Your task to perform on an android device: Show me popular videos on Youtube Image 0: 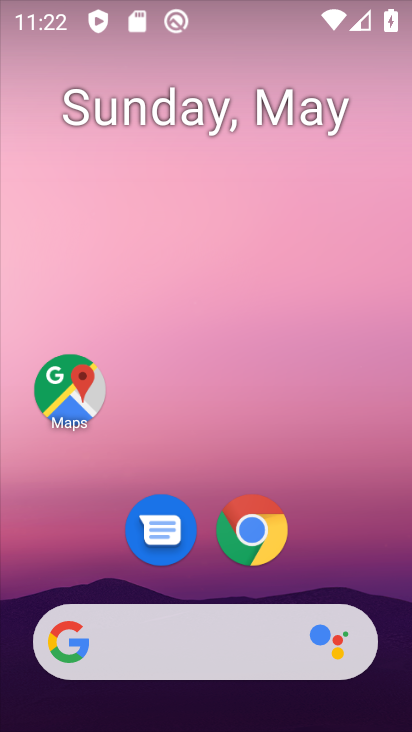
Step 0: drag from (218, 412) to (255, 106)
Your task to perform on an android device: Show me popular videos on Youtube Image 1: 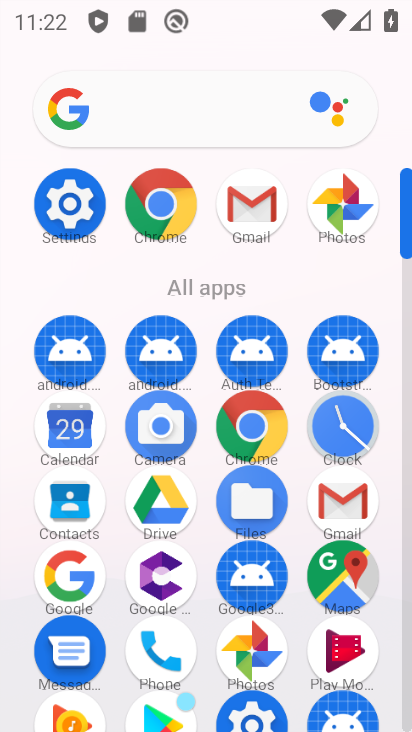
Step 1: drag from (208, 652) to (244, 86)
Your task to perform on an android device: Show me popular videos on Youtube Image 2: 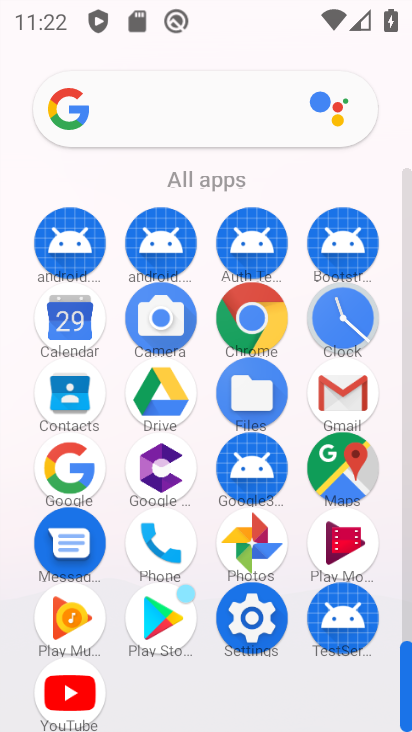
Step 2: click (68, 684)
Your task to perform on an android device: Show me popular videos on Youtube Image 3: 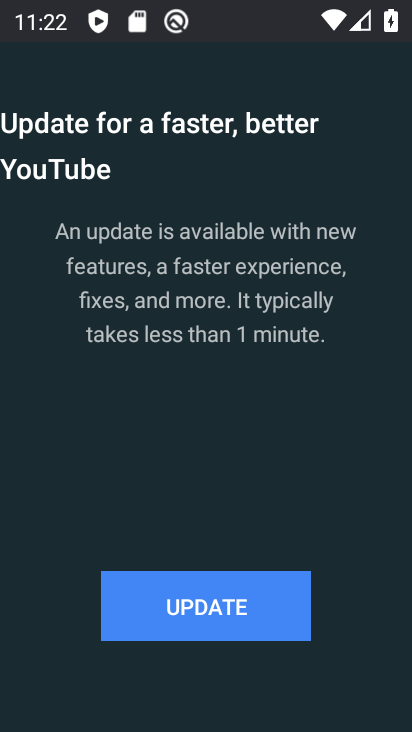
Step 3: click (228, 609)
Your task to perform on an android device: Show me popular videos on Youtube Image 4: 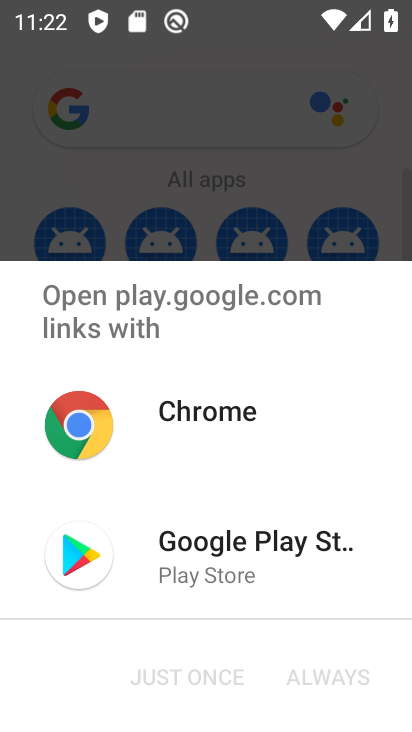
Step 4: click (188, 547)
Your task to perform on an android device: Show me popular videos on Youtube Image 5: 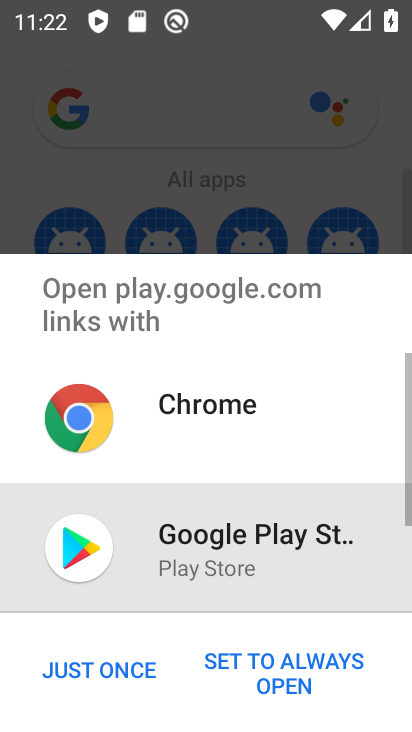
Step 5: click (173, 668)
Your task to perform on an android device: Show me popular videos on Youtube Image 6: 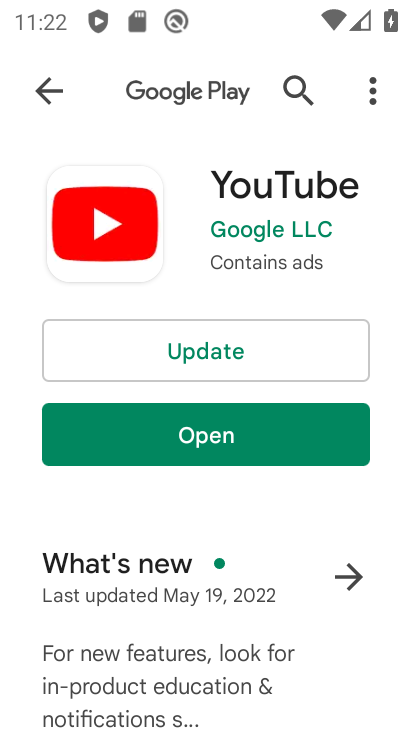
Step 6: click (33, 108)
Your task to perform on an android device: Show me popular videos on Youtube Image 7: 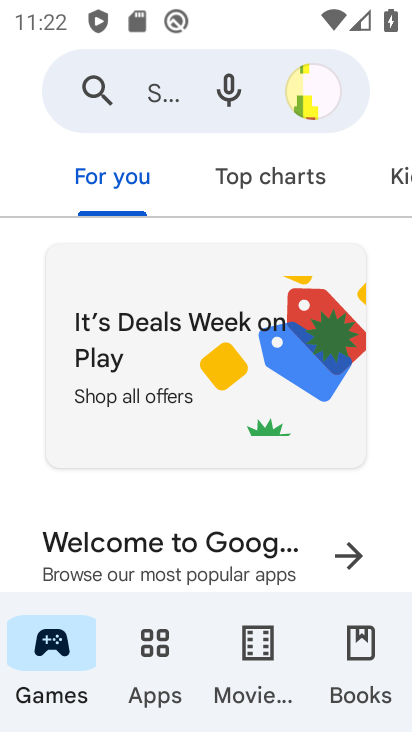
Step 7: press back button
Your task to perform on an android device: Show me popular videos on Youtube Image 8: 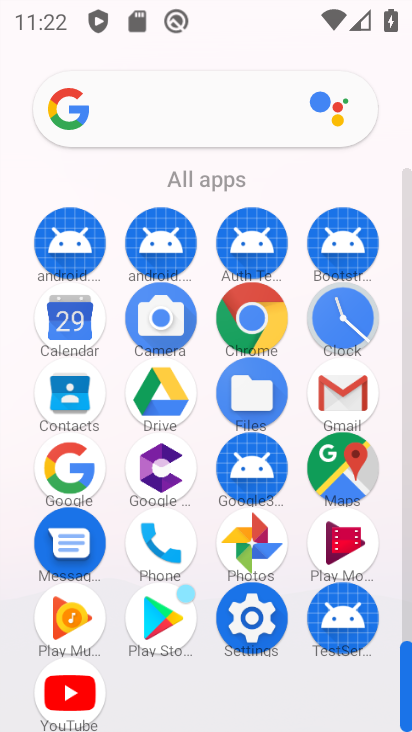
Step 8: click (83, 685)
Your task to perform on an android device: Show me popular videos on Youtube Image 9: 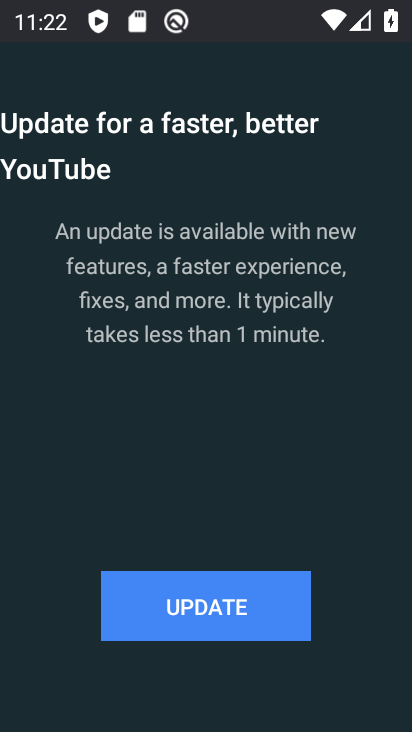
Step 9: click (200, 597)
Your task to perform on an android device: Show me popular videos on Youtube Image 10: 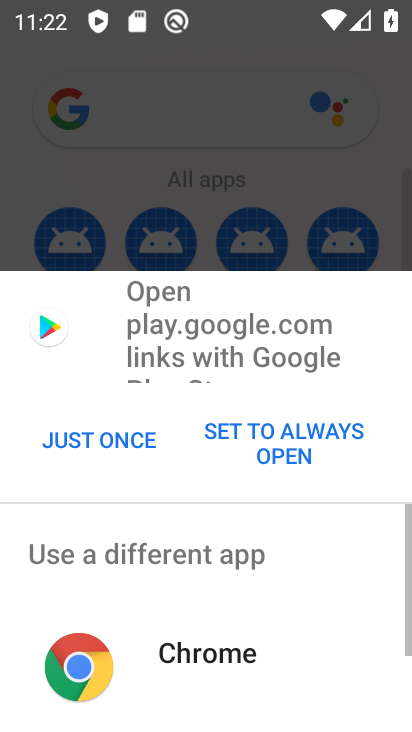
Step 10: click (199, 660)
Your task to perform on an android device: Show me popular videos on Youtube Image 11: 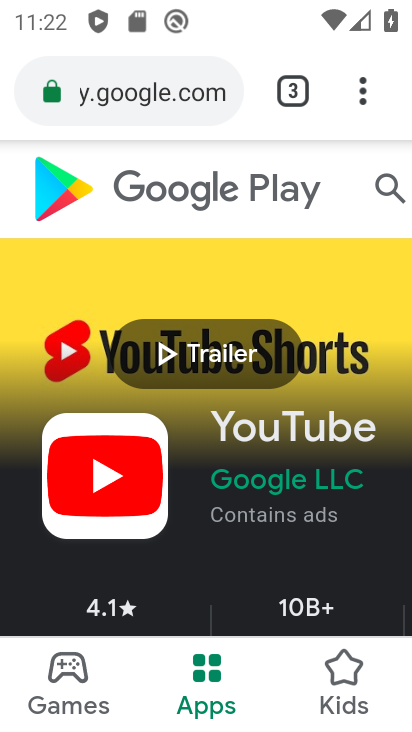
Step 11: press back button
Your task to perform on an android device: Show me popular videos on Youtube Image 12: 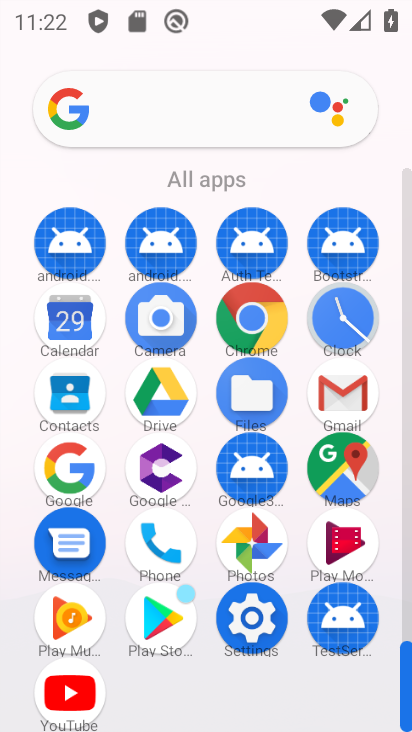
Step 12: click (73, 703)
Your task to perform on an android device: Show me popular videos on Youtube Image 13: 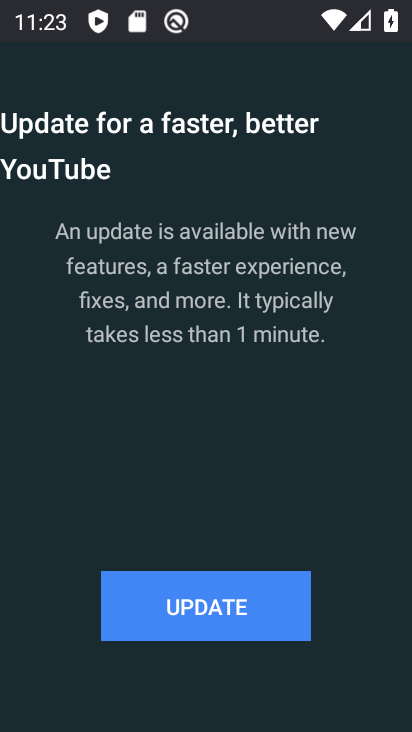
Step 13: click (201, 612)
Your task to perform on an android device: Show me popular videos on Youtube Image 14: 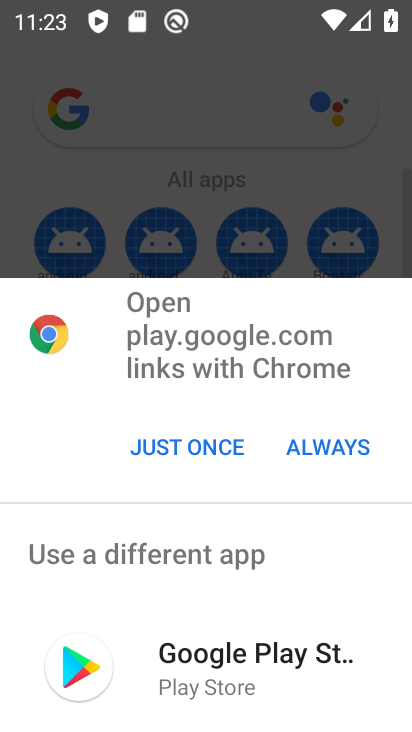
Step 14: click (180, 666)
Your task to perform on an android device: Show me popular videos on Youtube Image 15: 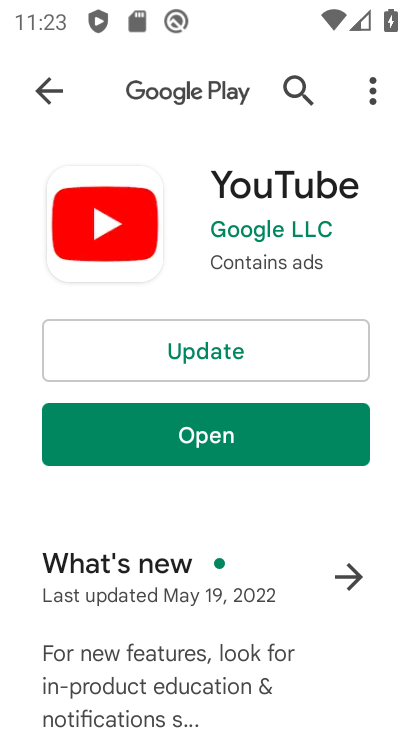
Step 15: click (205, 352)
Your task to perform on an android device: Show me popular videos on Youtube Image 16: 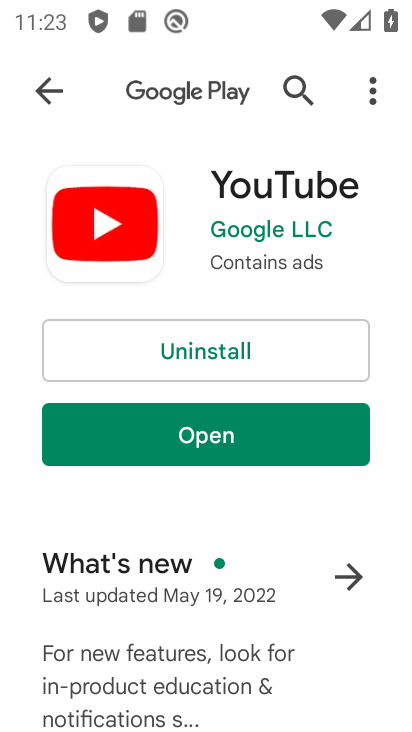
Step 16: click (159, 431)
Your task to perform on an android device: Show me popular videos on Youtube Image 17: 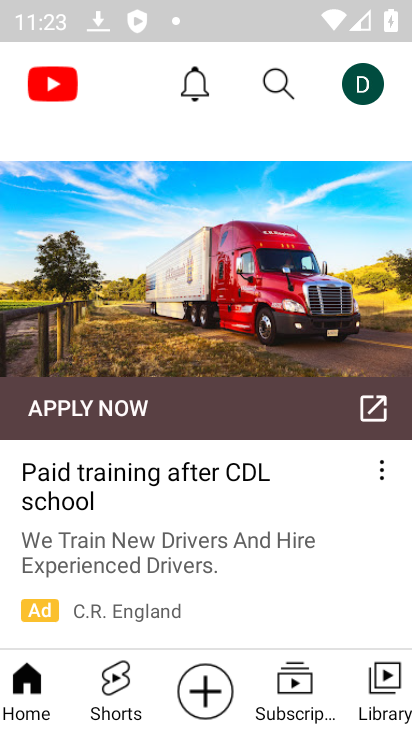
Step 17: drag from (179, 320) to (184, 595)
Your task to perform on an android device: Show me popular videos on Youtube Image 18: 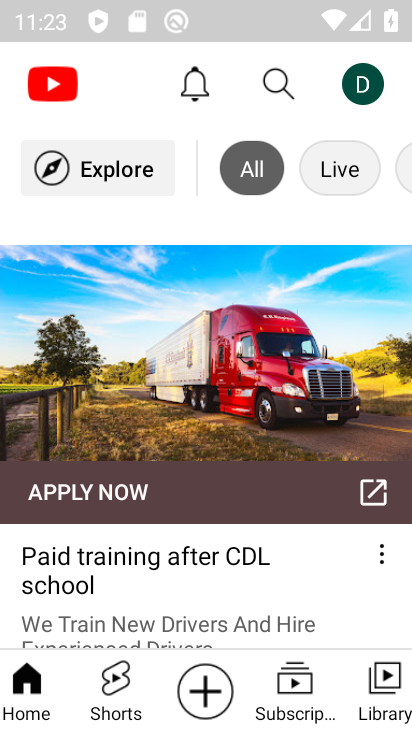
Step 18: click (86, 168)
Your task to perform on an android device: Show me popular videos on Youtube Image 19: 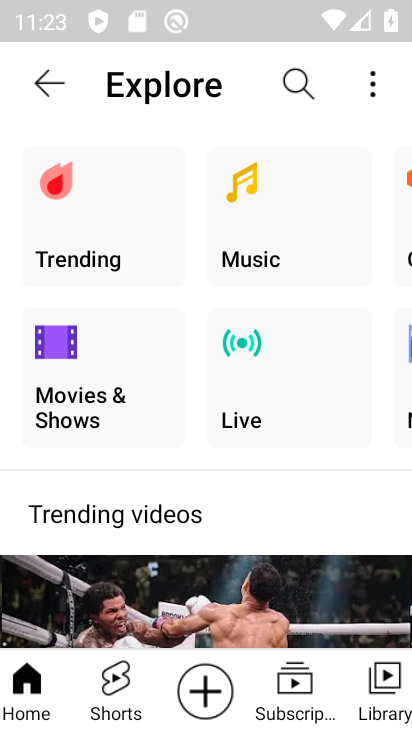
Step 19: click (41, 177)
Your task to perform on an android device: Show me popular videos on Youtube Image 20: 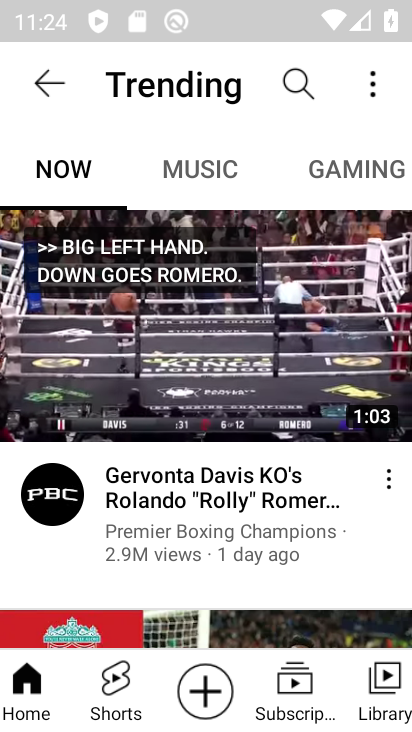
Step 20: task complete